Your task to perform on an android device: change notifications settings Image 0: 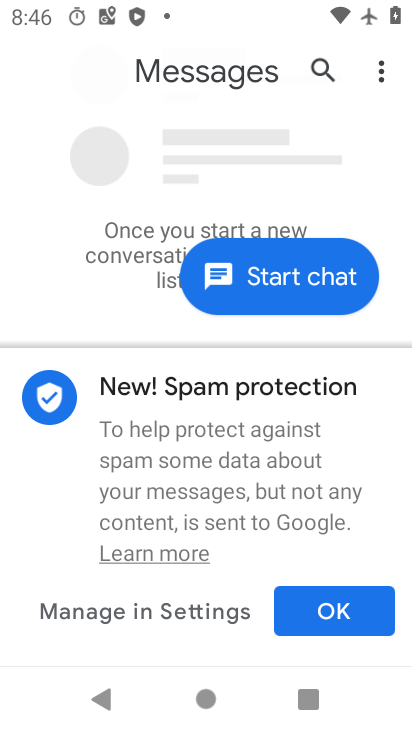
Step 0: press home button
Your task to perform on an android device: change notifications settings Image 1: 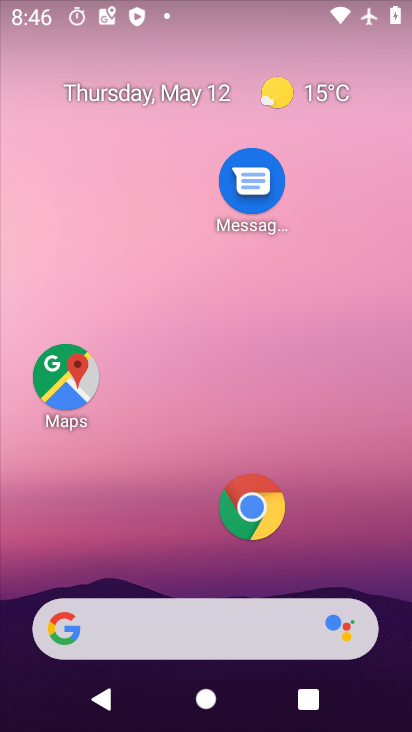
Step 1: drag from (318, 580) to (347, 37)
Your task to perform on an android device: change notifications settings Image 2: 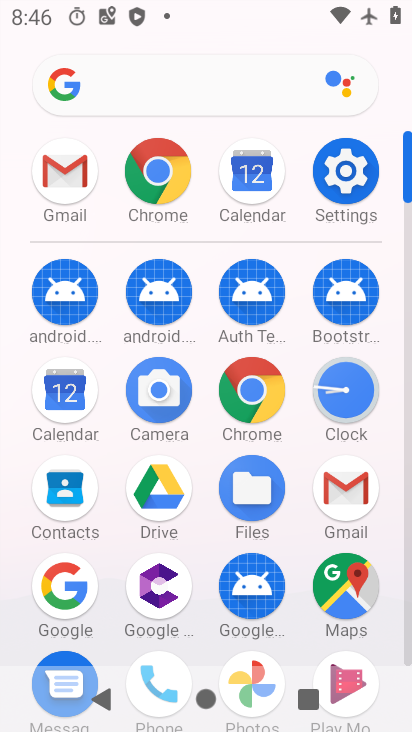
Step 2: click (347, 169)
Your task to perform on an android device: change notifications settings Image 3: 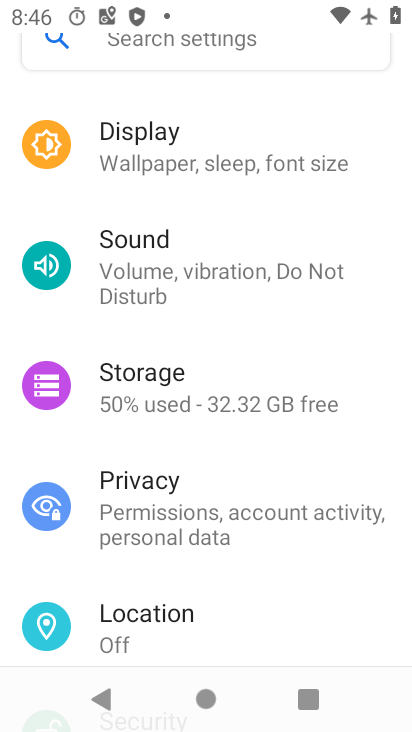
Step 3: drag from (211, 255) to (234, 451)
Your task to perform on an android device: change notifications settings Image 4: 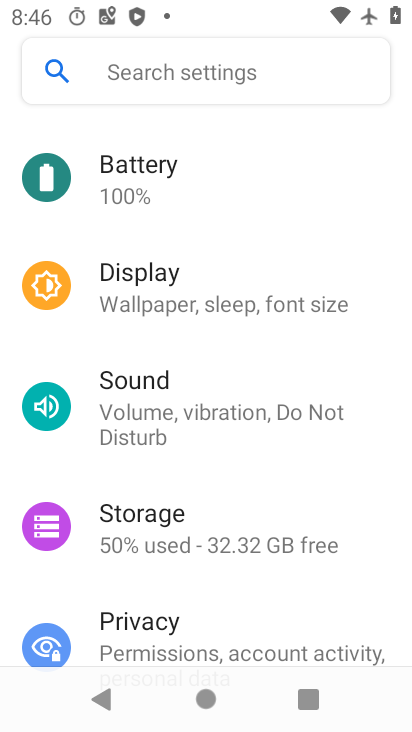
Step 4: drag from (165, 229) to (174, 377)
Your task to perform on an android device: change notifications settings Image 5: 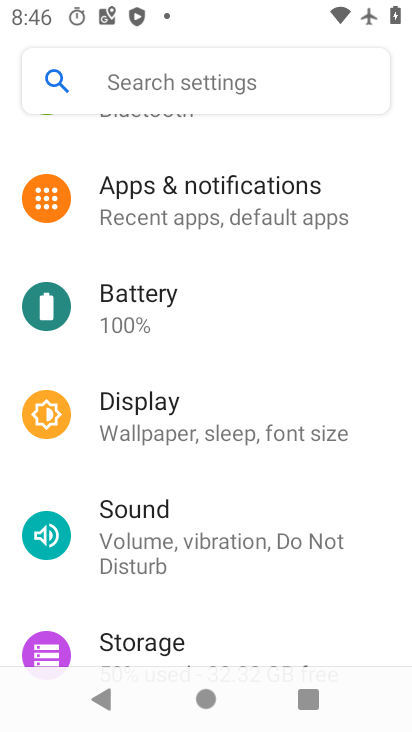
Step 5: click (232, 215)
Your task to perform on an android device: change notifications settings Image 6: 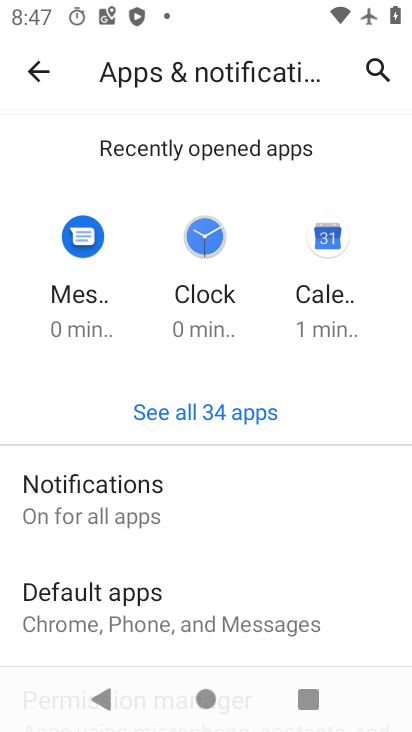
Step 6: click (165, 513)
Your task to perform on an android device: change notifications settings Image 7: 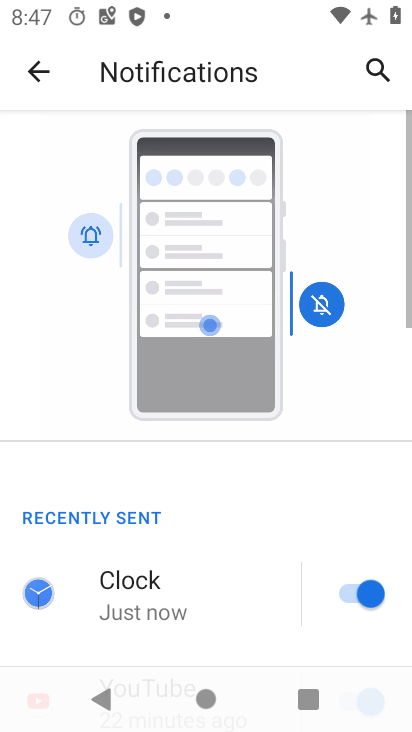
Step 7: drag from (199, 564) to (272, 74)
Your task to perform on an android device: change notifications settings Image 8: 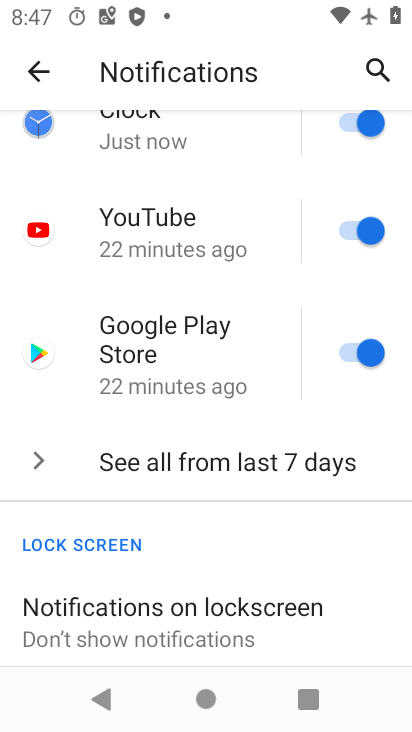
Step 8: click (235, 470)
Your task to perform on an android device: change notifications settings Image 9: 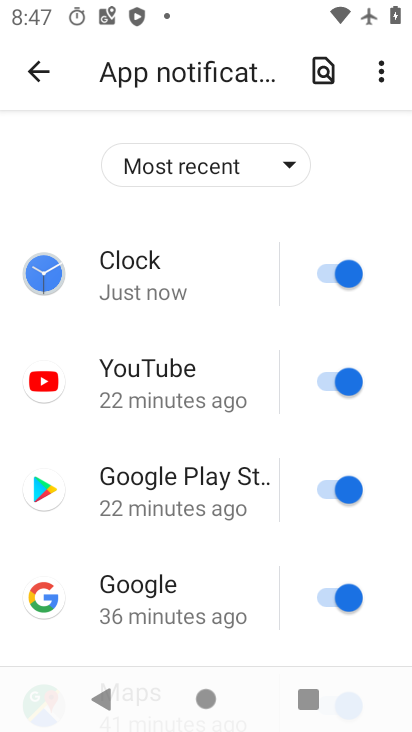
Step 9: click (323, 280)
Your task to perform on an android device: change notifications settings Image 10: 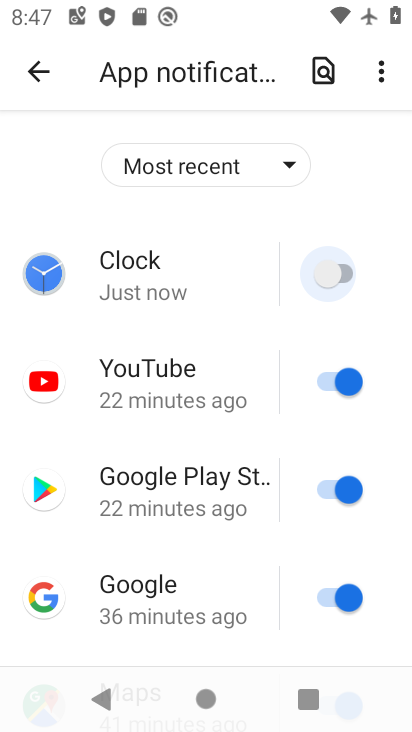
Step 10: click (335, 401)
Your task to perform on an android device: change notifications settings Image 11: 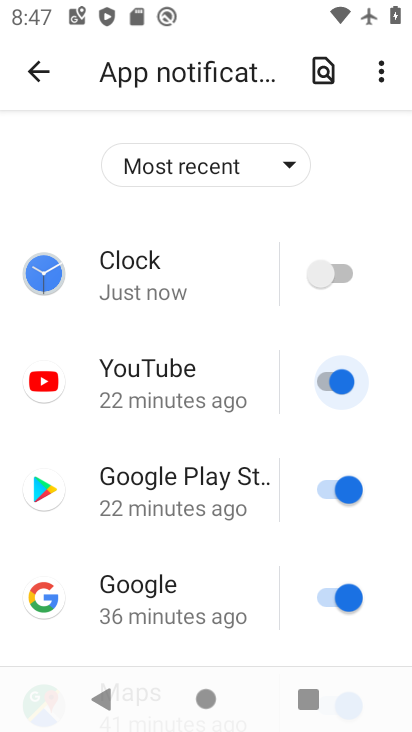
Step 11: click (335, 480)
Your task to perform on an android device: change notifications settings Image 12: 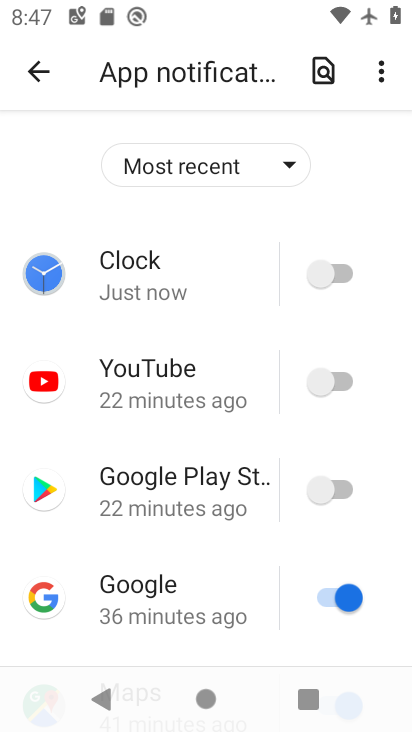
Step 12: click (315, 582)
Your task to perform on an android device: change notifications settings Image 13: 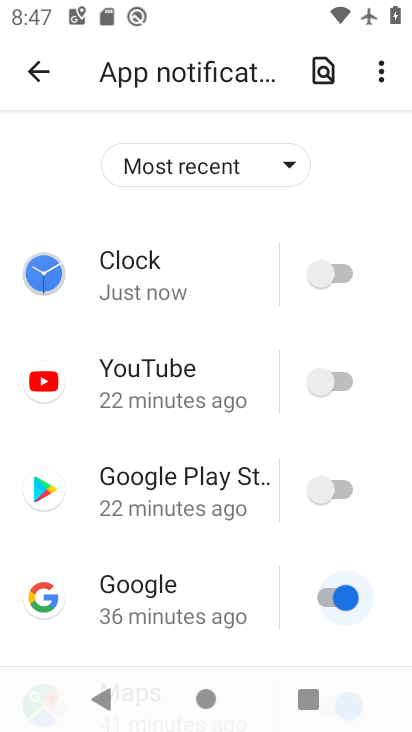
Step 13: drag from (231, 552) to (251, 183)
Your task to perform on an android device: change notifications settings Image 14: 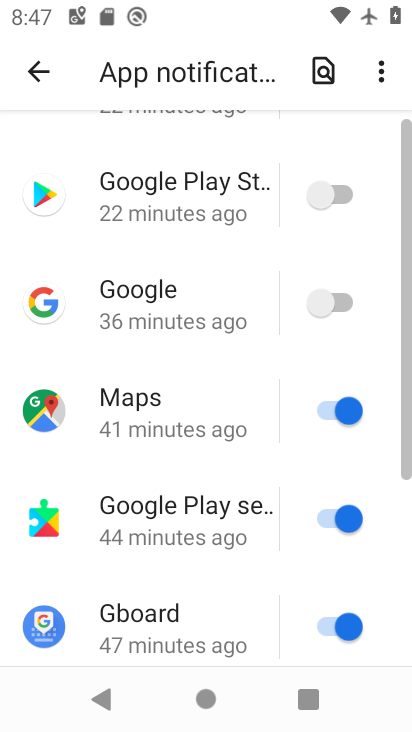
Step 14: click (321, 399)
Your task to perform on an android device: change notifications settings Image 15: 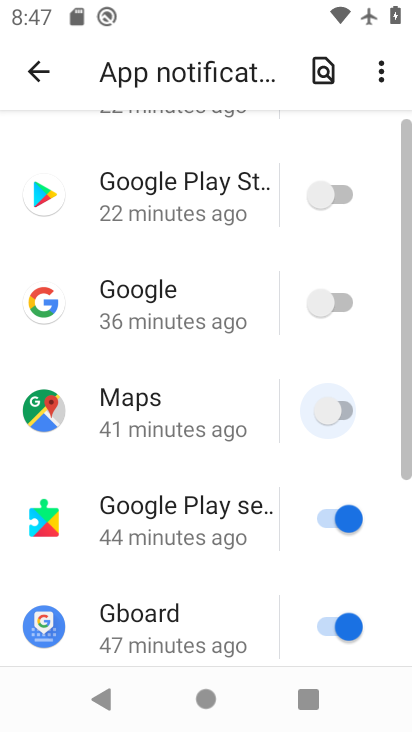
Step 15: click (322, 506)
Your task to perform on an android device: change notifications settings Image 16: 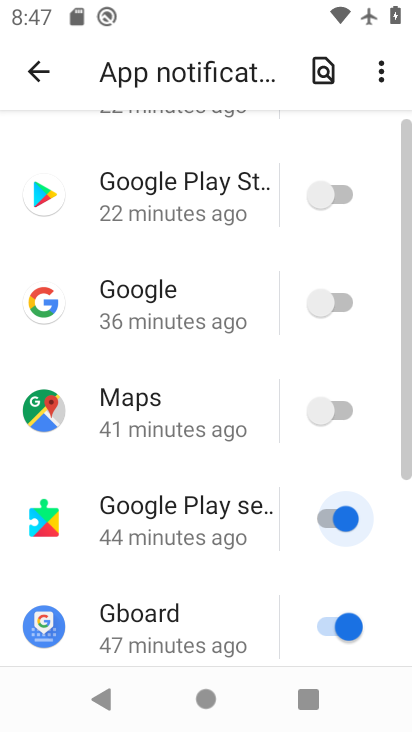
Step 16: click (334, 617)
Your task to perform on an android device: change notifications settings Image 17: 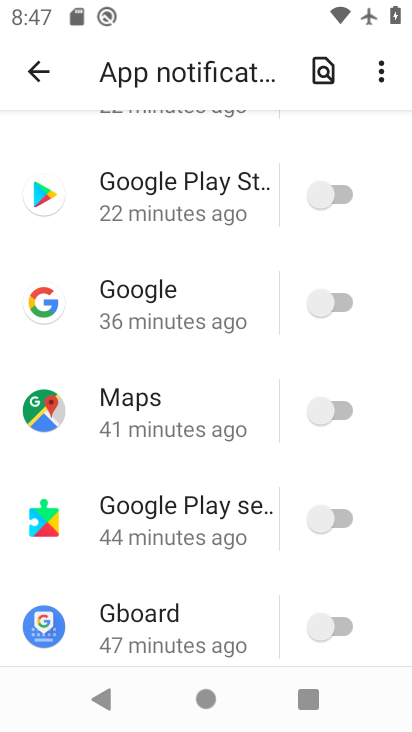
Step 17: drag from (169, 588) to (185, 209)
Your task to perform on an android device: change notifications settings Image 18: 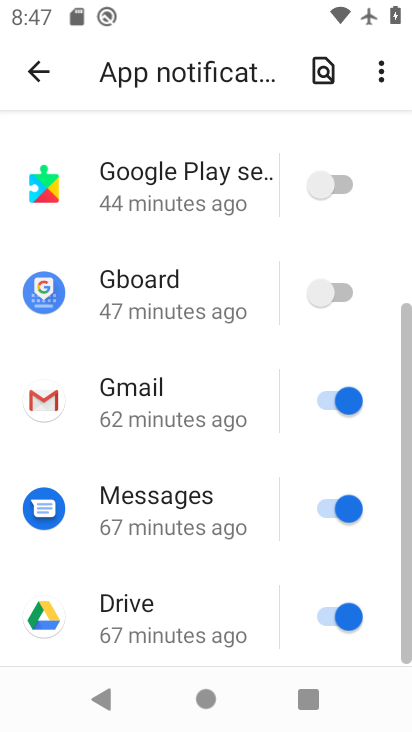
Step 18: click (336, 396)
Your task to perform on an android device: change notifications settings Image 19: 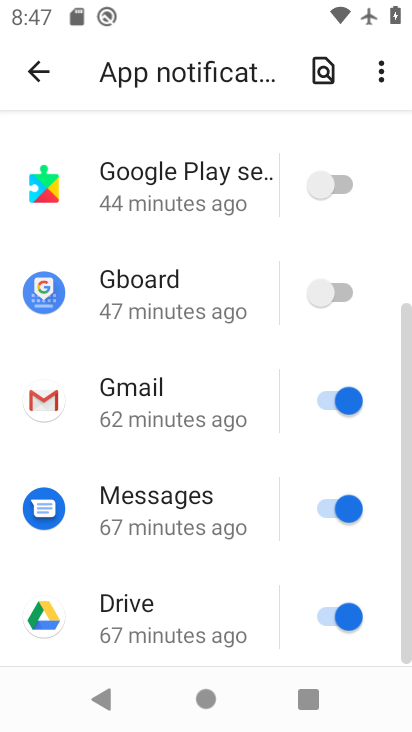
Step 19: click (338, 517)
Your task to perform on an android device: change notifications settings Image 20: 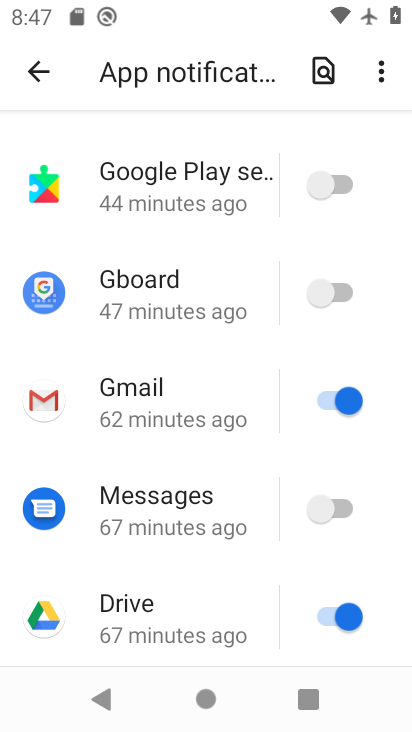
Step 20: click (343, 401)
Your task to perform on an android device: change notifications settings Image 21: 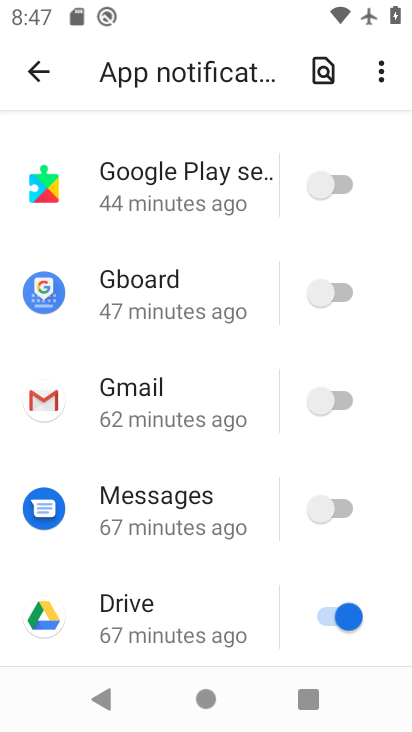
Step 21: click (352, 625)
Your task to perform on an android device: change notifications settings Image 22: 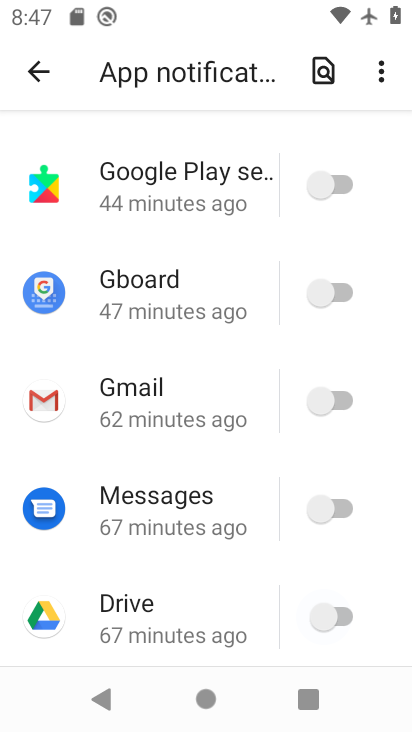
Step 22: click (342, 514)
Your task to perform on an android device: change notifications settings Image 23: 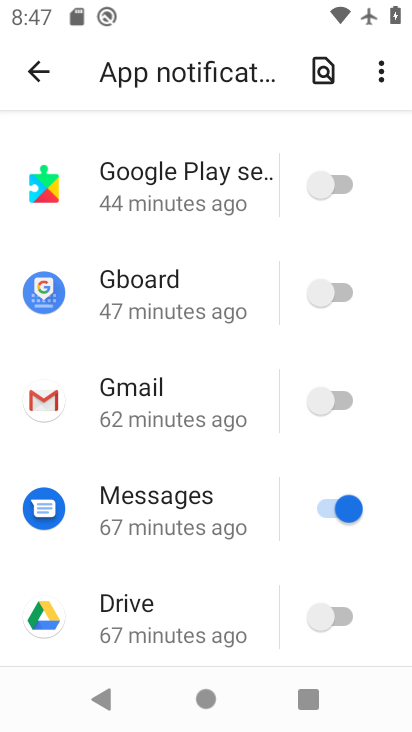
Step 23: drag from (115, 643) to (115, 150)
Your task to perform on an android device: change notifications settings Image 24: 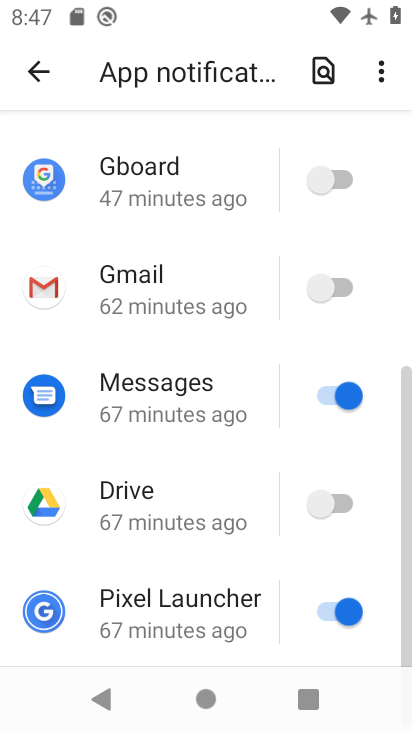
Step 24: click (338, 619)
Your task to perform on an android device: change notifications settings Image 25: 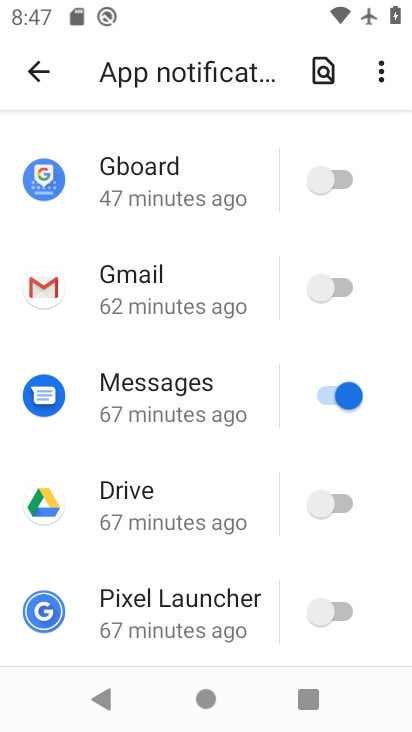
Step 25: click (46, 62)
Your task to perform on an android device: change notifications settings Image 26: 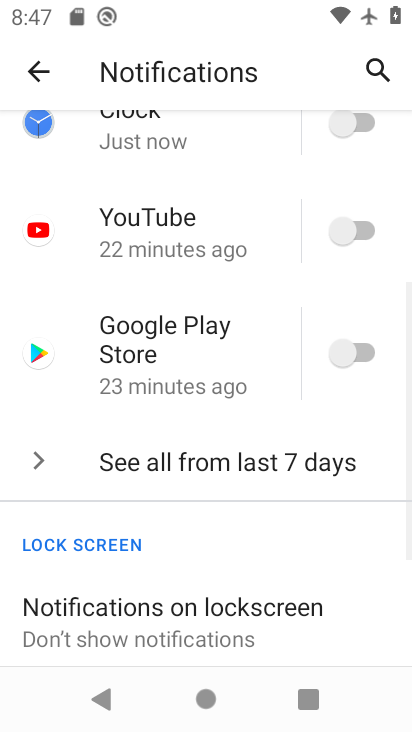
Step 26: click (186, 607)
Your task to perform on an android device: change notifications settings Image 27: 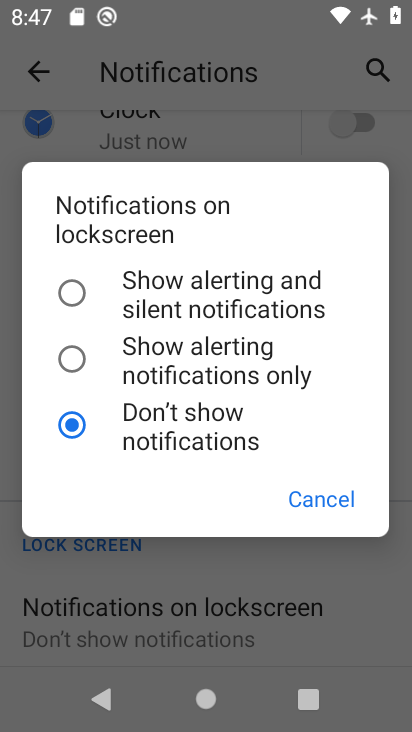
Step 27: click (154, 294)
Your task to perform on an android device: change notifications settings Image 28: 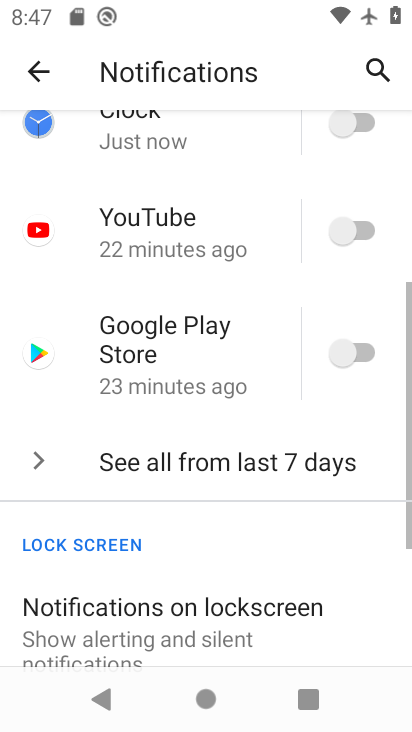
Step 28: drag from (165, 555) to (197, 98)
Your task to perform on an android device: change notifications settings Image 29: 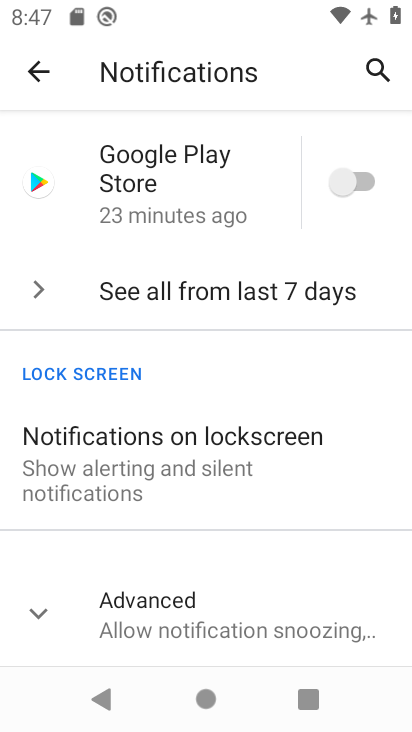
Step 29: click (136, 613)
Your task to perform on an android device: change notifications settings Image 30: 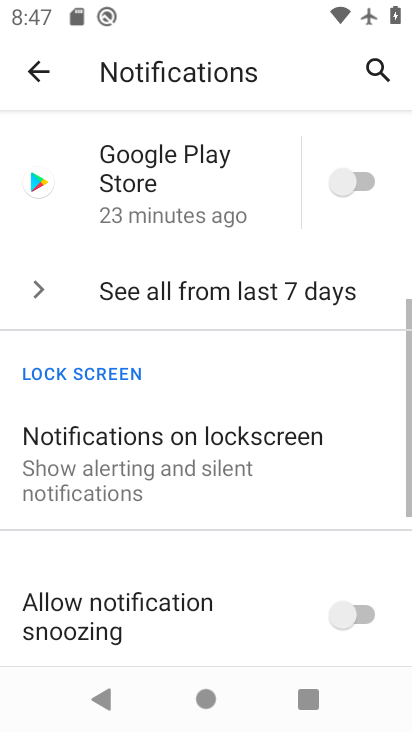
Step 30: drag from (152, 616) to (200, 207)
Your task to perform on an android device: change notifications settings Image 31: 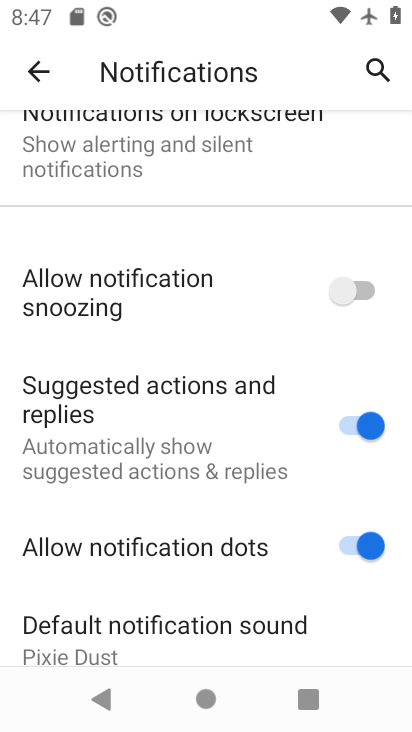
Step 31: click (338, 306)
Your task to perform on an android device: change notifications settings Image 32: 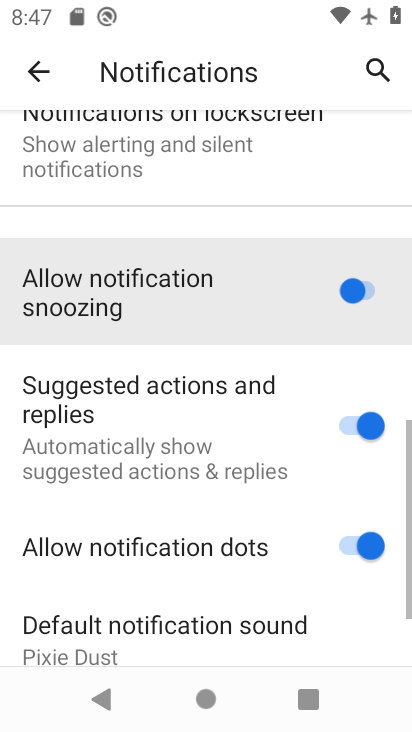
Step 32: click (316, 472)
Your task to perform on an android device: change notifications settings Image 33: 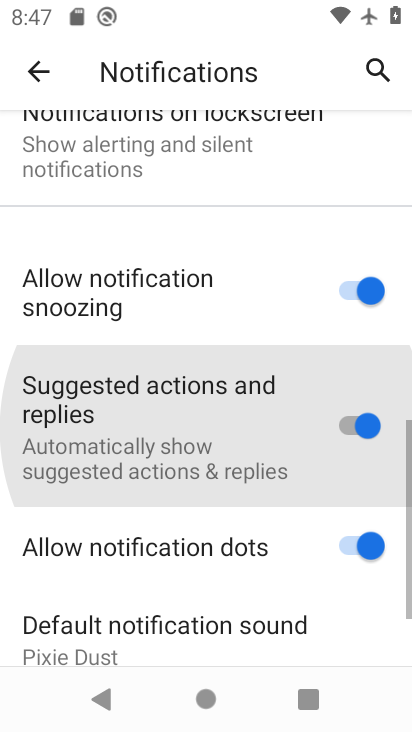
Step 33: click (328, 567)
Your task to perform on an android device: change notifications settings Image 34: 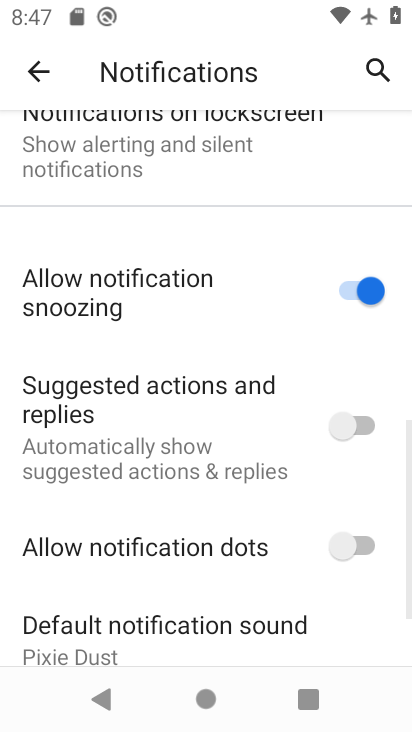
Step 34: task complete